Your task to perform on an android device: Open Youtube and go to the subscriptions tab Image 0: 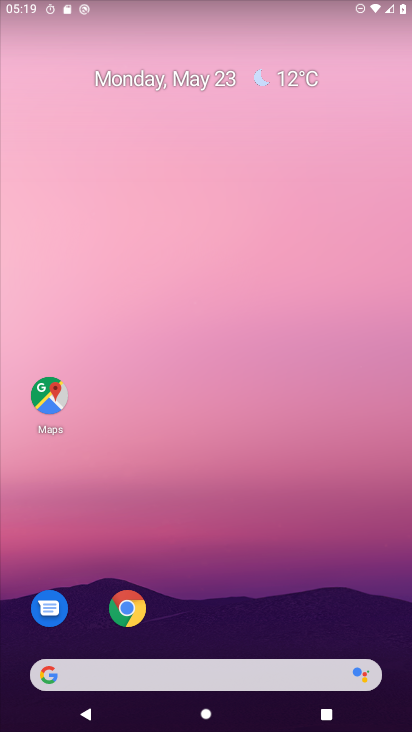
Step 0: drag from (272, 514) to (211, 109)
Your task to perform on an android device: Open Youtube and go to the subscriptions tab Image 1: 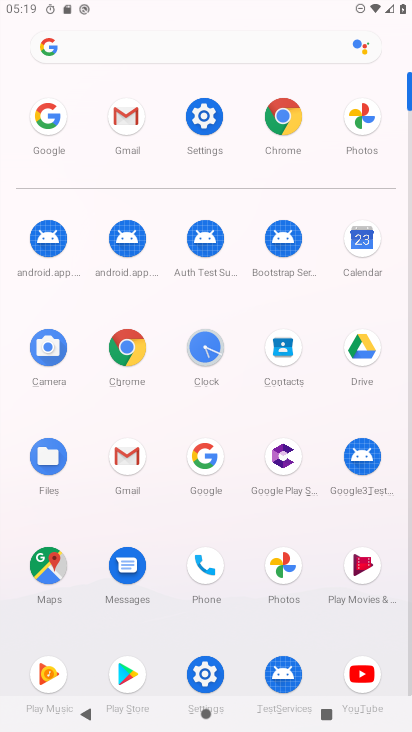
Step 1: click (361, 668)
Your task to perform on an android device: Open Youtube and go to the subscriptions tab Image 2: 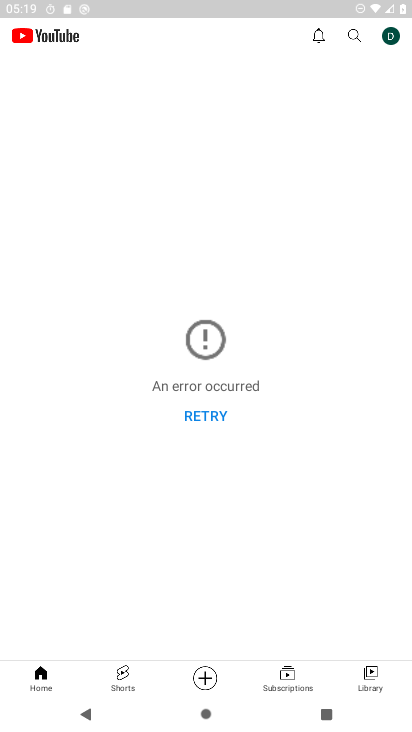
Step 2: click (285, 676)
Your task to perform on an android device: Open Youtube and go to the subscriptions tab Image 3: 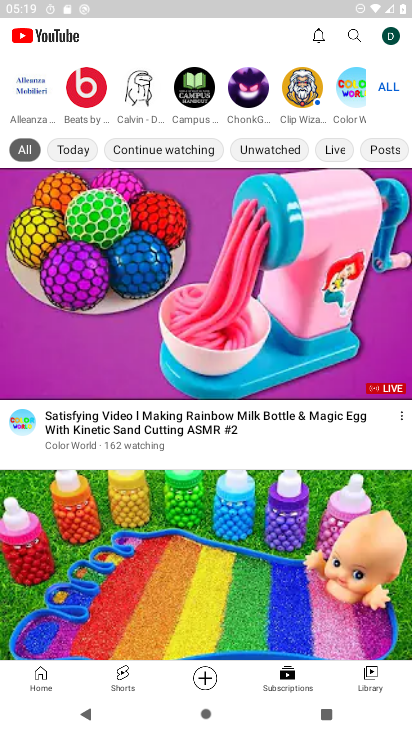
Step 3: task complete